Your task to perform on an android device: add a contact in the contacts app Image 0: 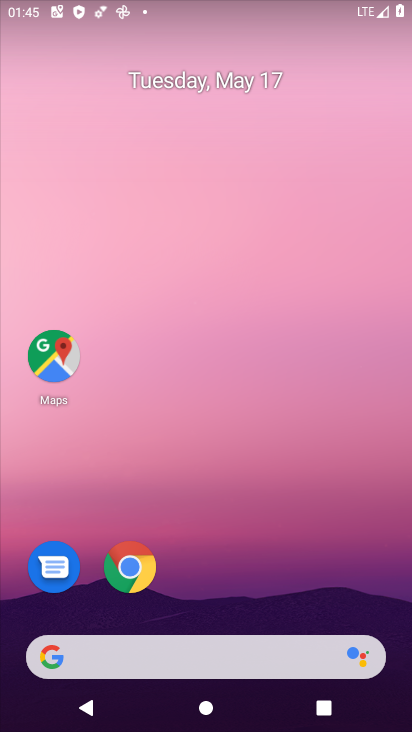
Step 0: drag from (383, 605) to (248, 84)
Your task to perform on an android device: add a contact in the contacts app Image 1: 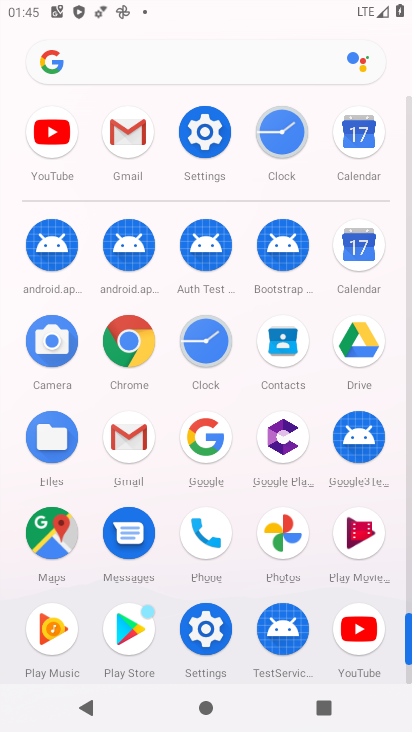
Step 1: click (282, 343)
Your task to perform on an android device: add a contact in the contacts app Image 2: 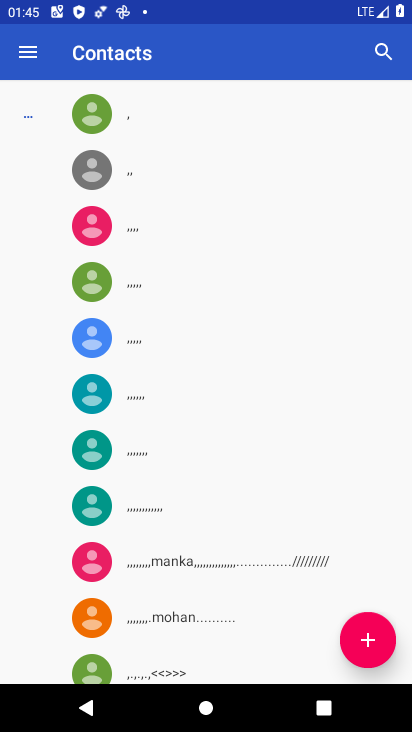
Step 2: click (365, 630)
Your task to perform on an android device: add a contact in the contacts app Image 3: 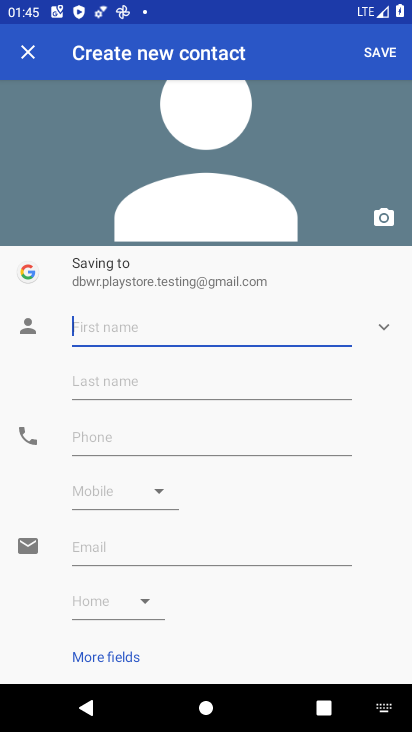
Step 3: type "ljkjuyiopt"
Your task to perform on an android device: add a contact in the contacts app Image 4: 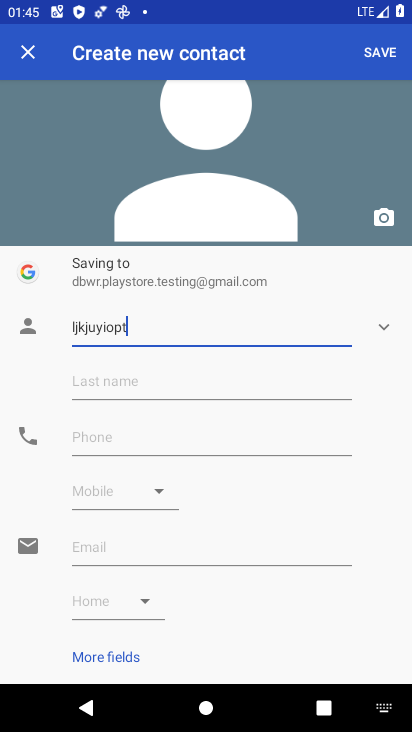
Step 4: click (152, 450)
Your task to perform on an android device: add a contact in the contacts app Image 5: 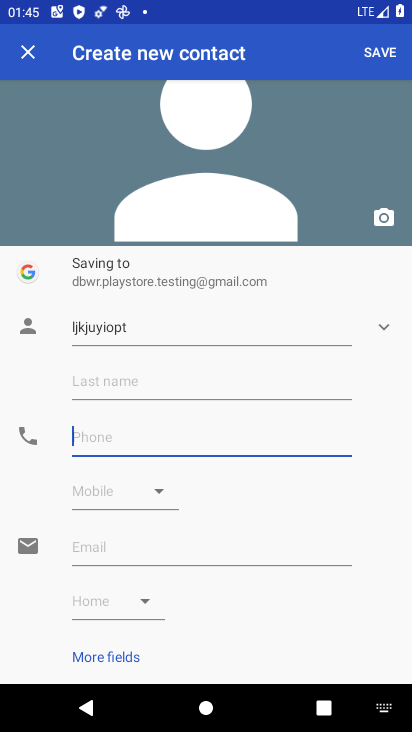
Step 5: type "0807945620"
Your task to perform on an android device: add a contact in the contacts app Image 6: 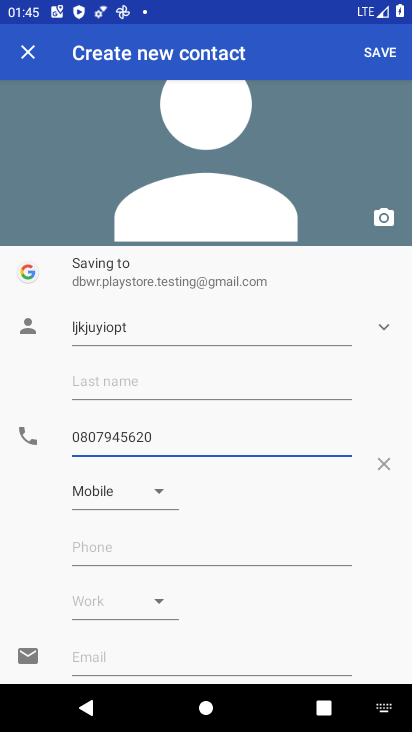
Step 6: click (151, 497)
Your task to perform on an android device: add a contact in the contacts app Image 7: 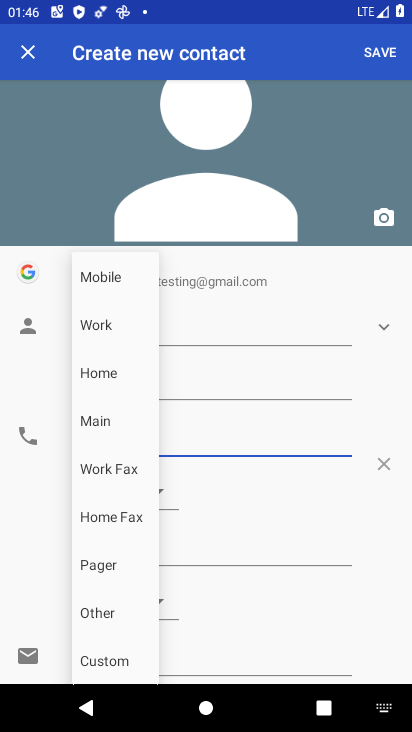
Step 7: click (100, 371)
Your task to perform on an android device: add a contact in the contacts app Image 8: 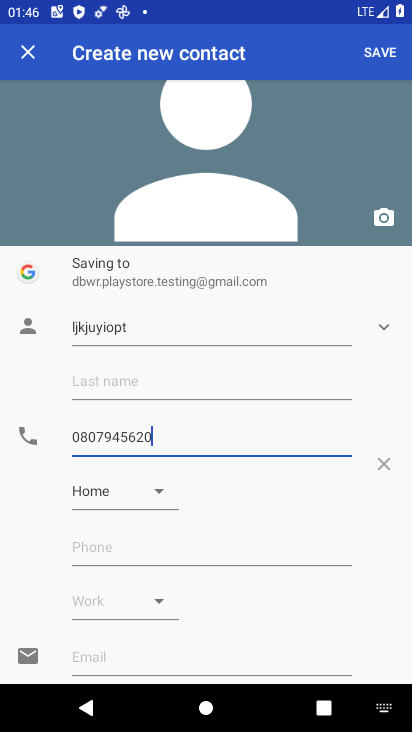
Step 8: click (370, 44)
Your task to perform on an android device: add a contact in the contacts app Image 9: 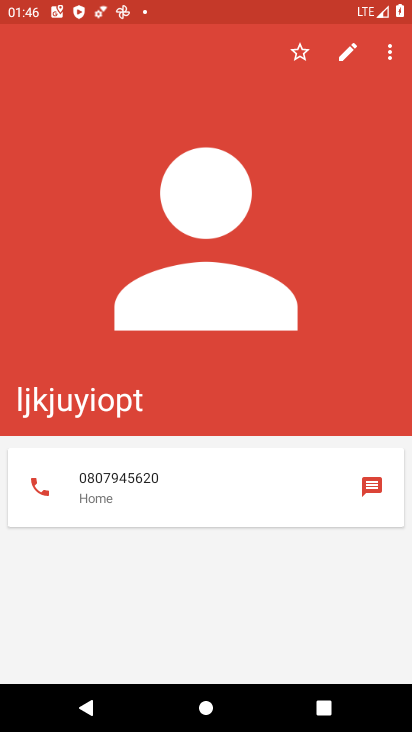
Step 9: task complete